Your task to perform on an android device: What's on my calendar tomorrow? Image 0: 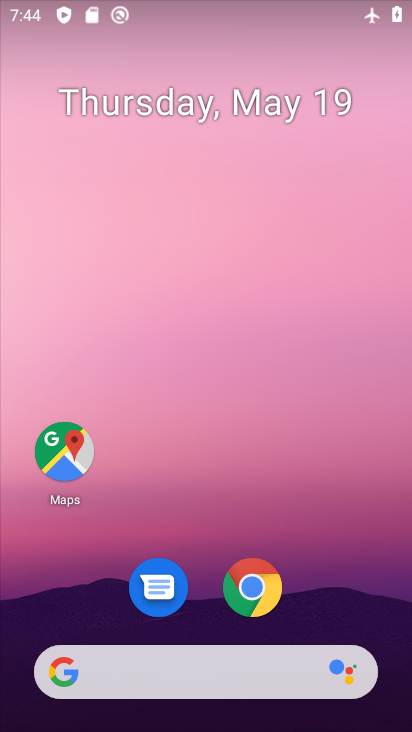
Step 0: drag from (217, 585) to (210, 312)
Your task to perform on an android device: What's on my calendar tomorrow? Image 1: 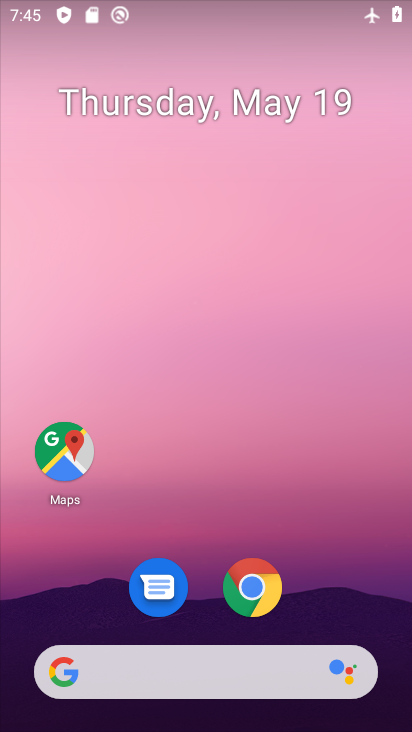
Step 1: drag from (212, 580) to (269, 169)
Your task to perform on an android device: What's on my calendar tomorrow? Image 2: 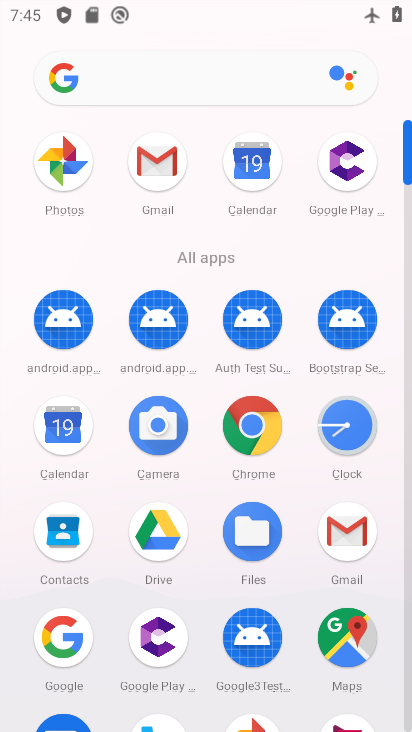
Step 2: click (62, 431)
Your task to perform on an android device: What's on my calendar tomorrow? Image 3: 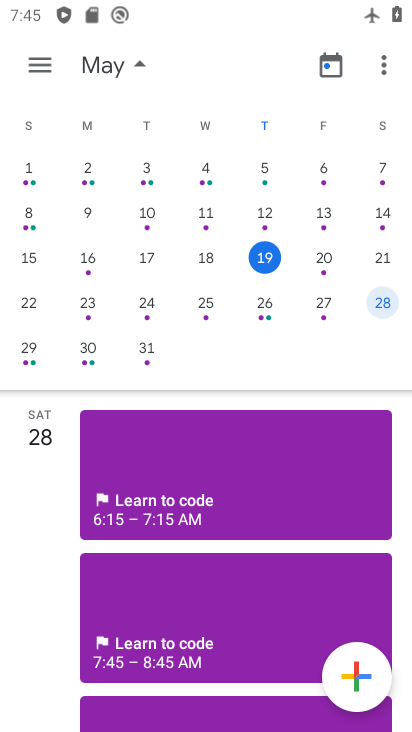
Step 3: click (321, 259)
Your task to perform on an android device: What's on my calendar tomorrow? Image 4: 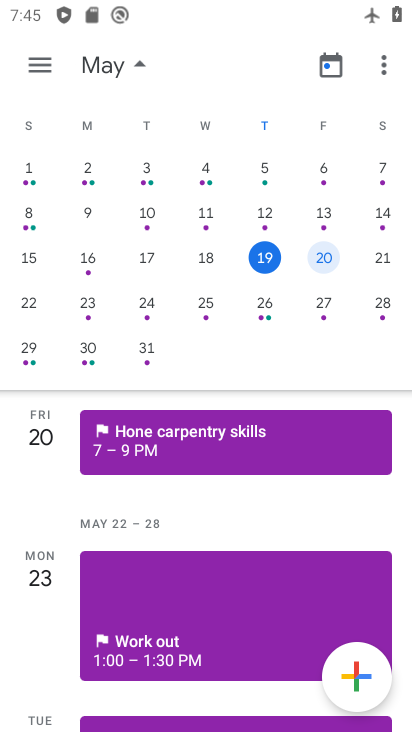
Step 4: task complete